Your task to perform on an android device: Open sound settings Image 0: 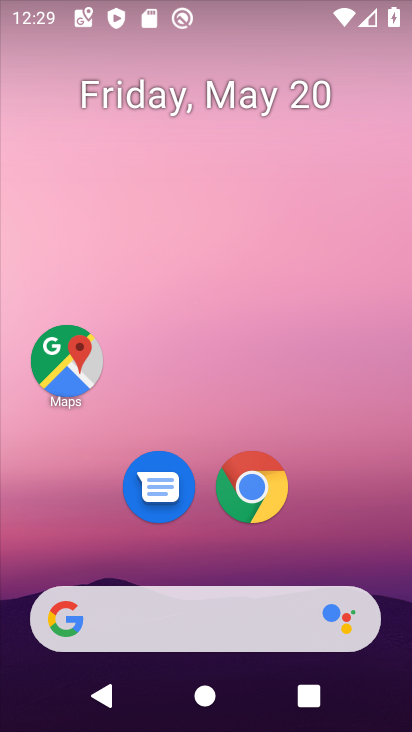
Step 0: drag from (198, 484) to (250, 50)
Your task to perform on an android device: Open sound settings Image 1: 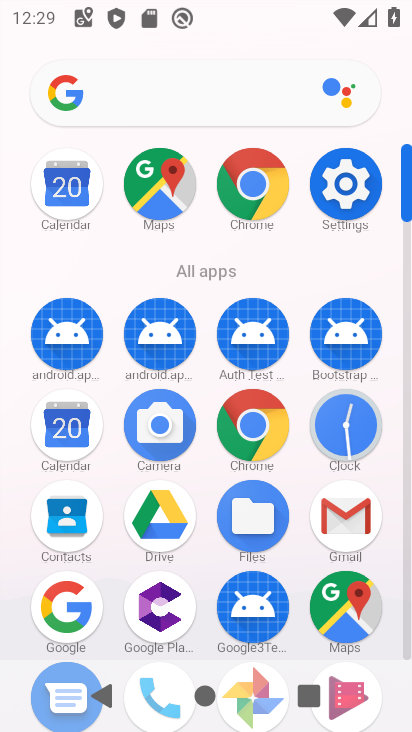
Step 1: click (351, 187)
Your task to perform on an android device: Open sound settings Image 2: 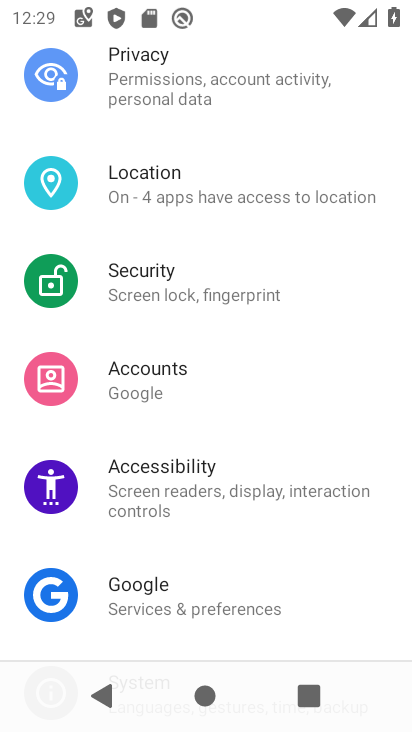
Step 2: drag from (244, 137) to (201, 620)
Your task to perform on an android device: Open sound settings Image 3: 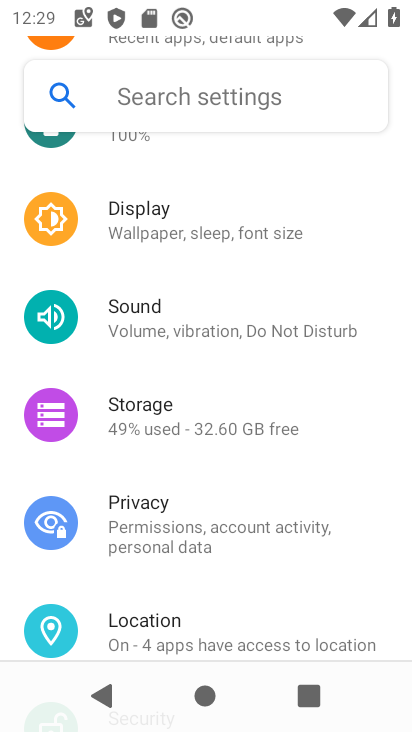
Step 3: click (163, 318)
Your task to perform on an android device: Open sound settings Image 4: 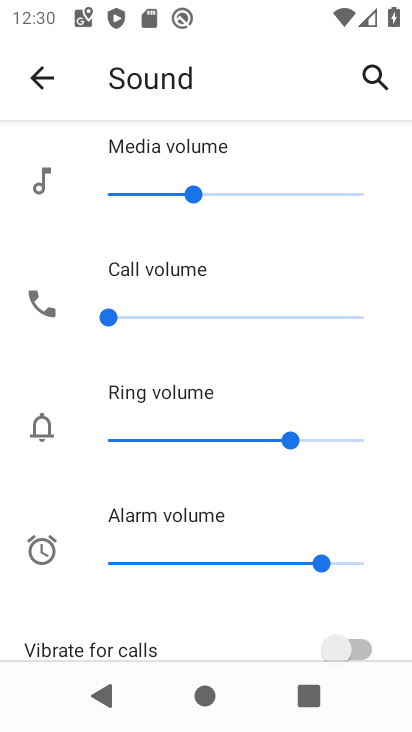
Step 4: task complete